Your task to perform on an android device: Open the map Image 0: 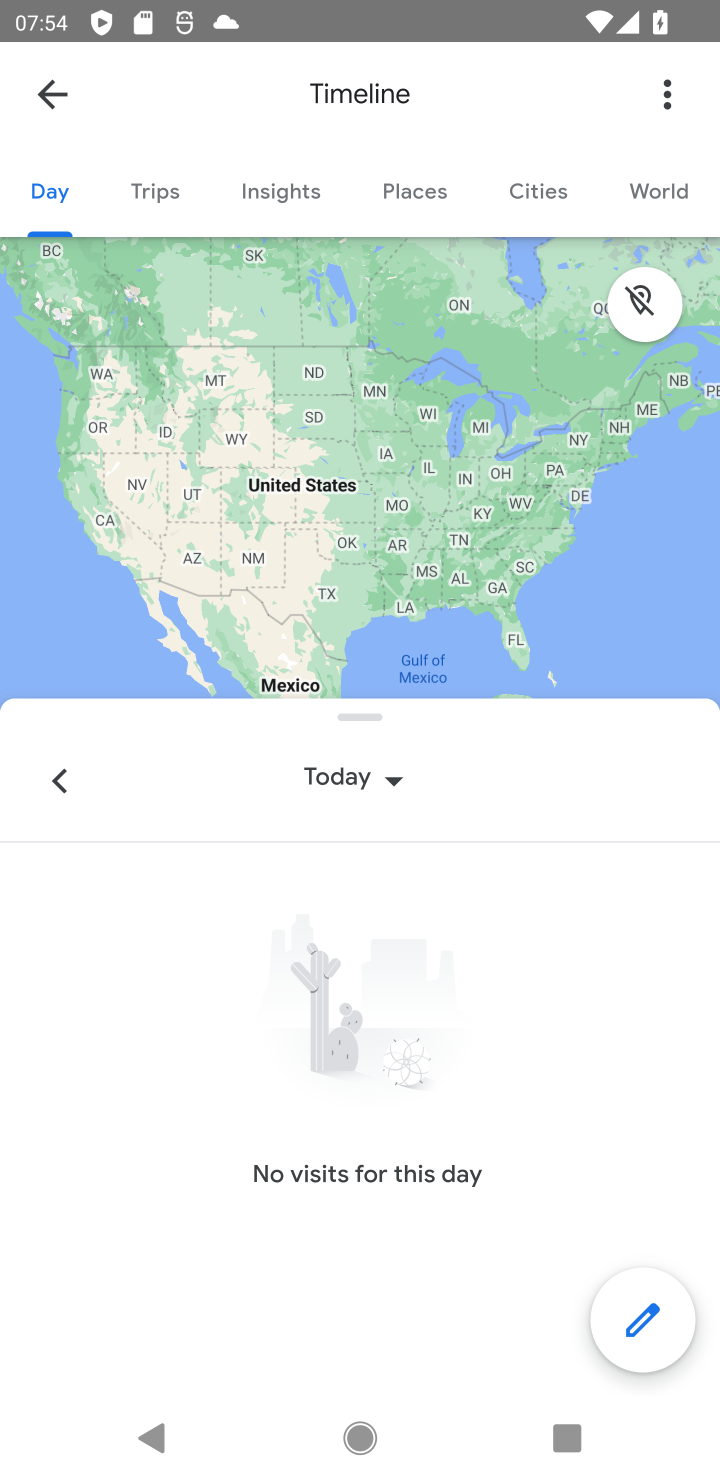
Step 0: press home button
Your task to perform on an android device: Open the map Image 1: 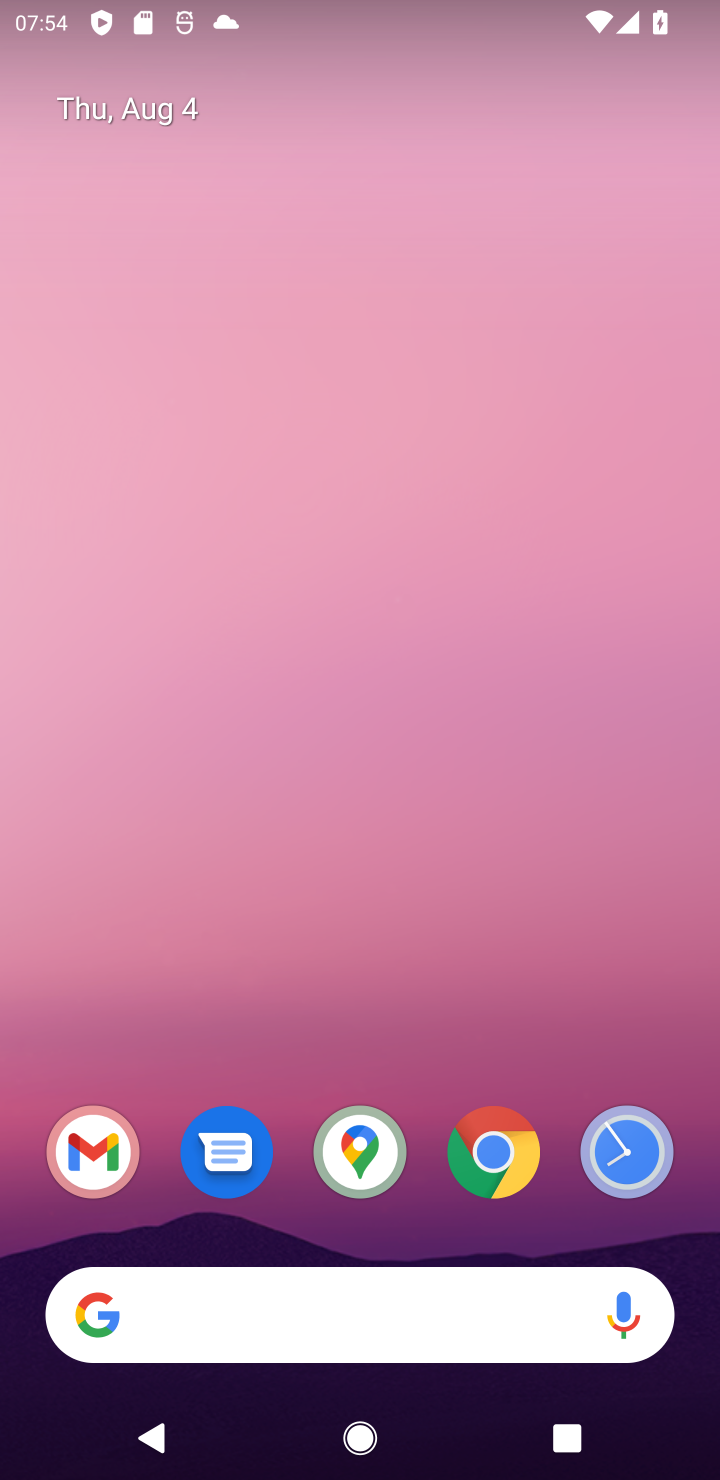
Step 1: click (400, 1151)
Your task to perform on an android device: Open the map Image 2: 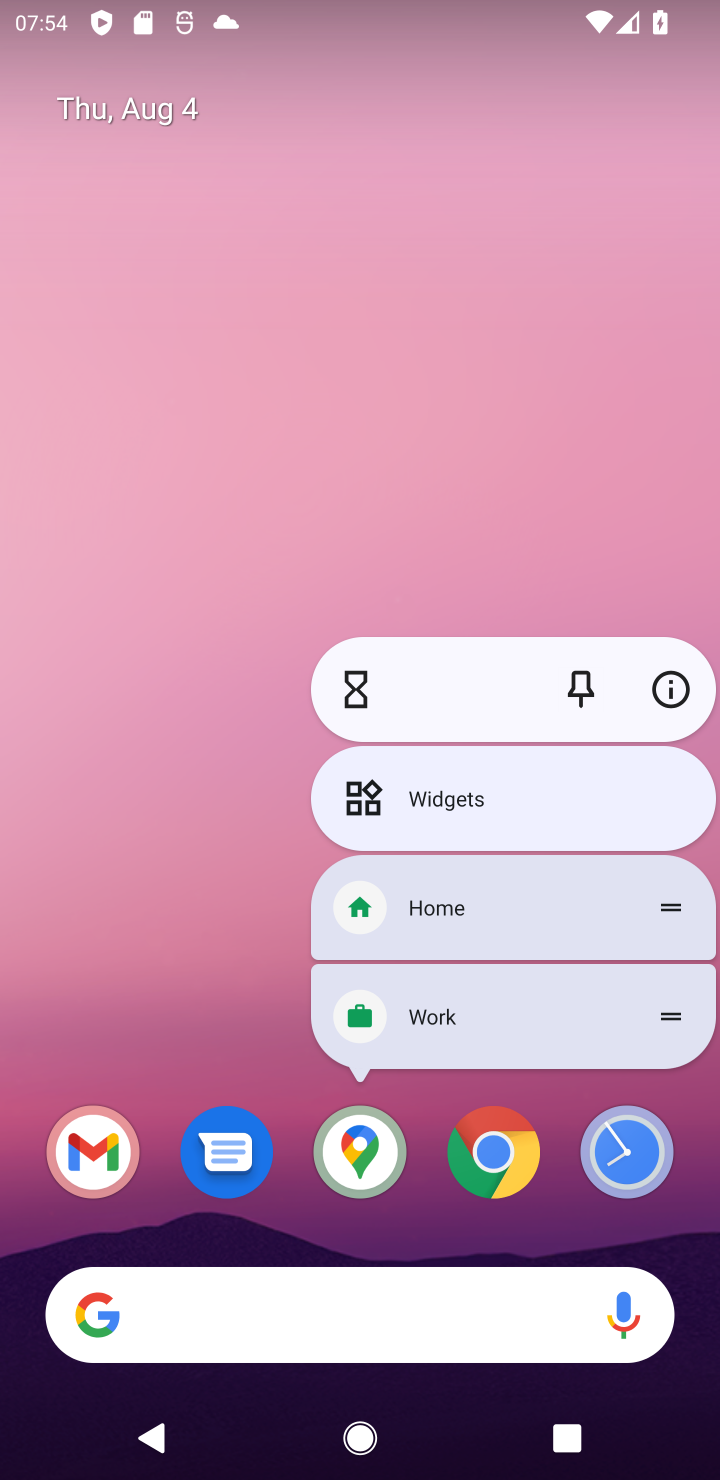
Step 2: click (380, 1144)
Your task to perform on an android device: Open the map Image 3: 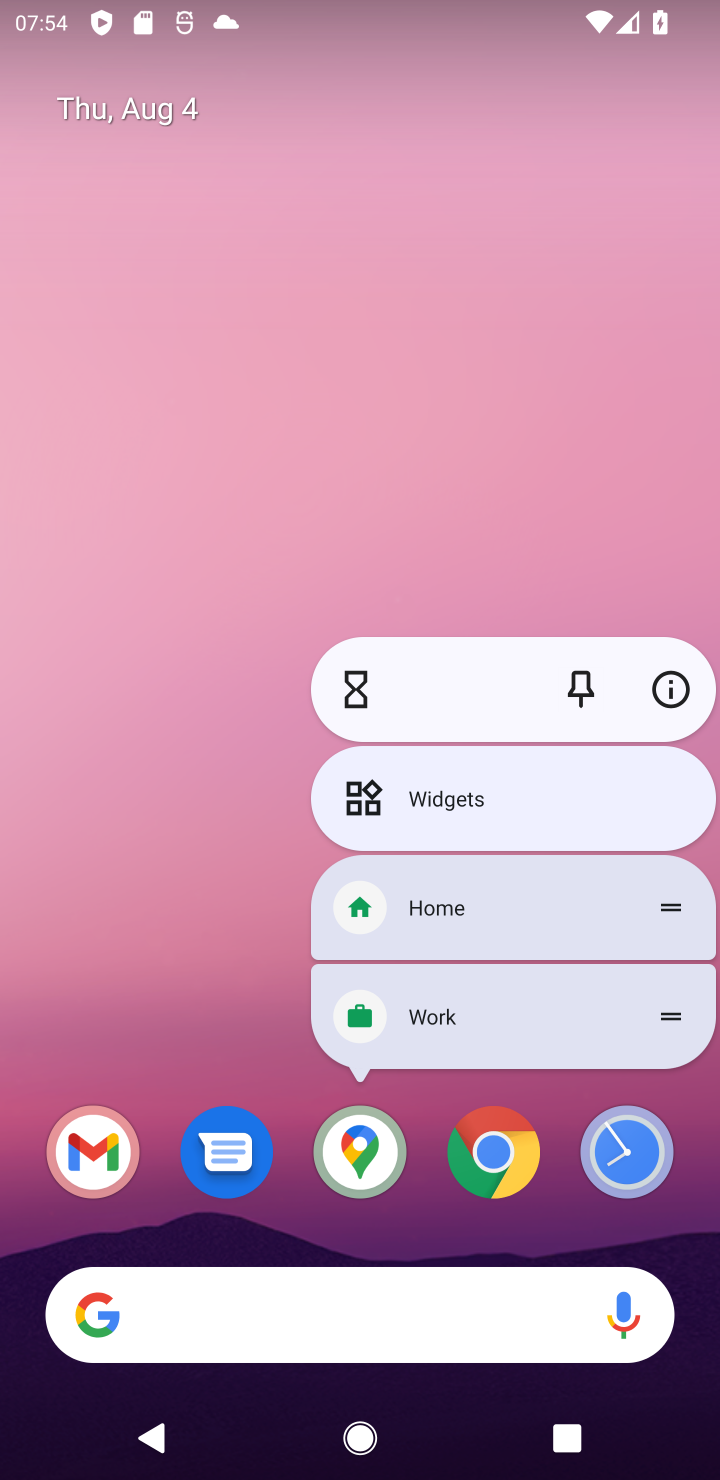
Step 3: click (380, 1142)
Your task to perform on an android device: Open the map Image 4: 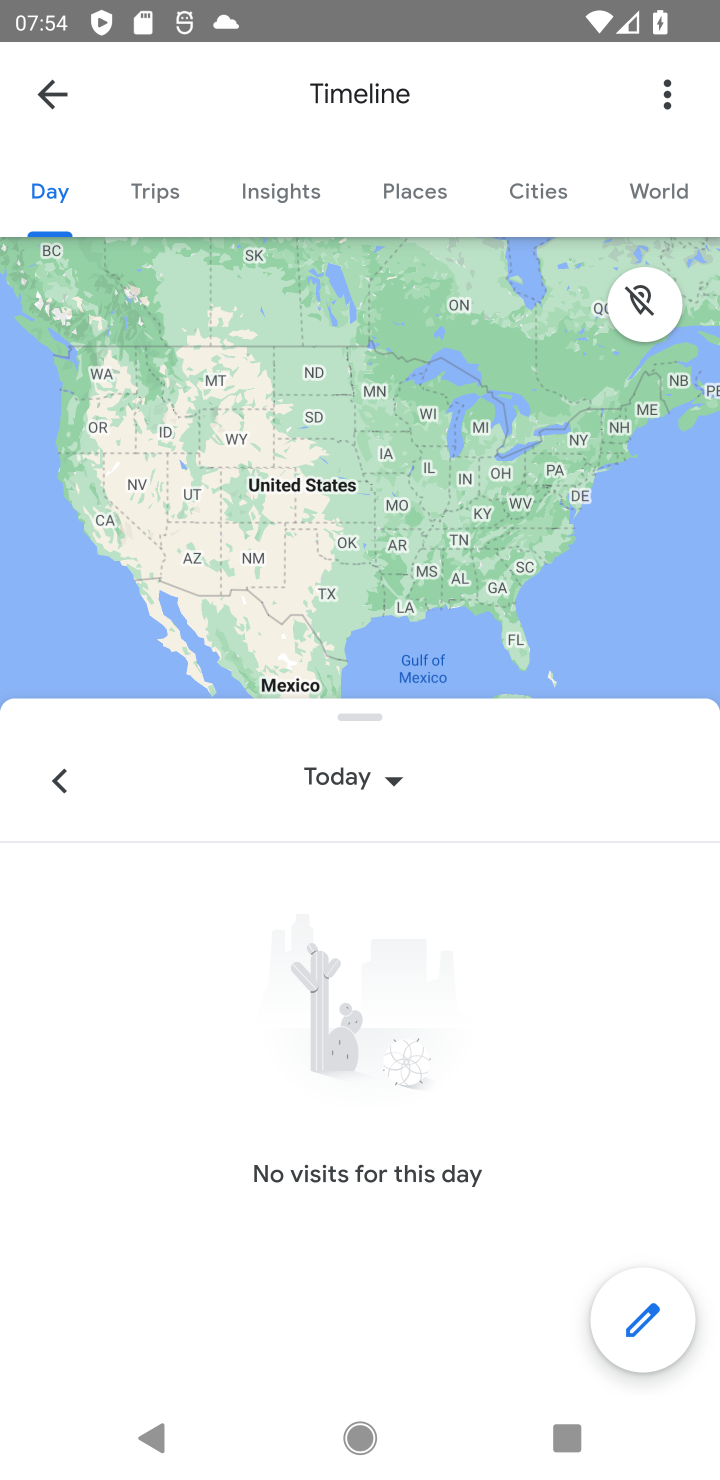
Step 4: click (30, 96)
Your task to perform on an android device: Open the map Image 5: 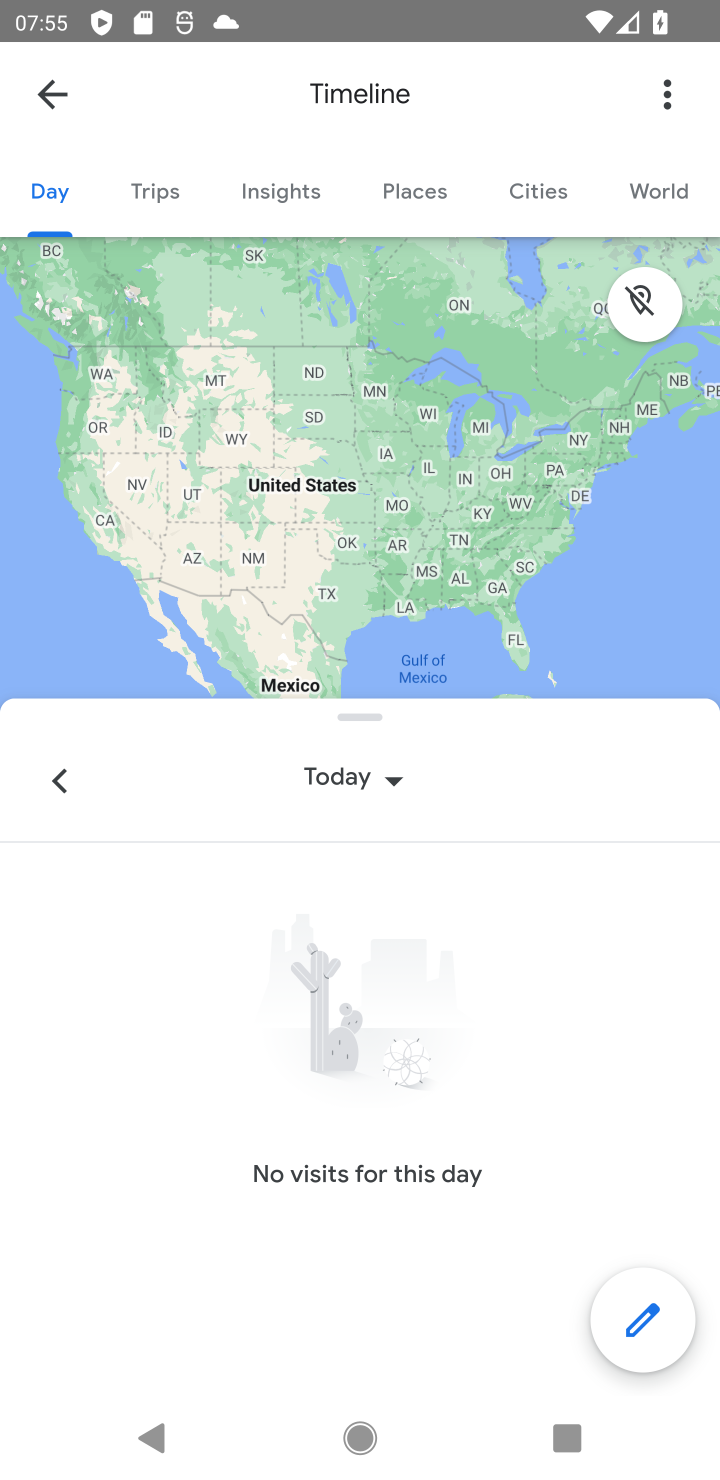
Step 5: task complete